Your task to perform on an android device: change text size in settings app Image 0: 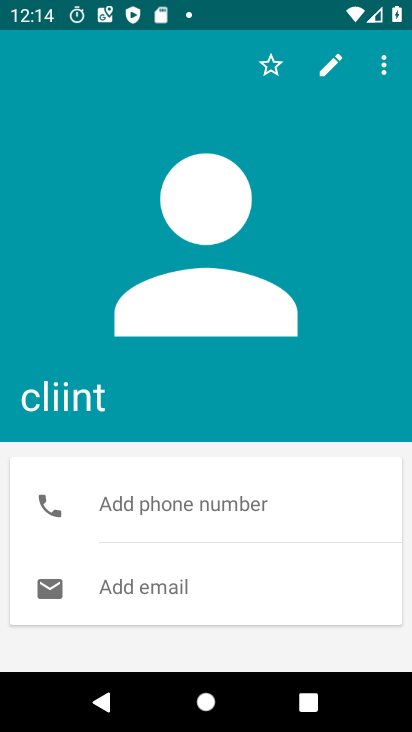
Step 0: press home button
Your task to perform on an android device: change text size in settings app Image 1: 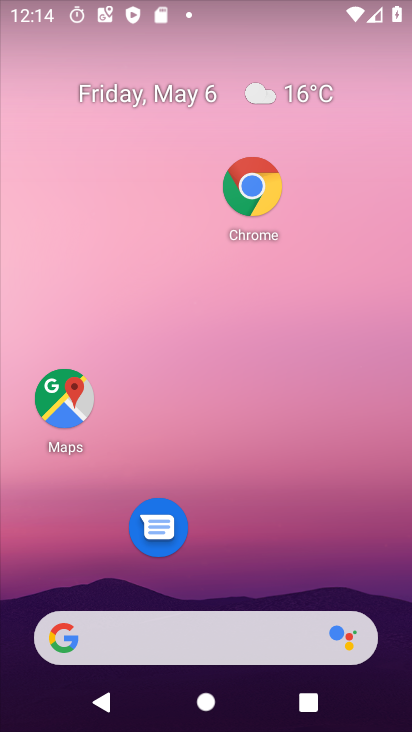
Step 1: drag from (230, 552) to (317, 65)
Your task to perform on an android device: change text size in settings app Image 2: 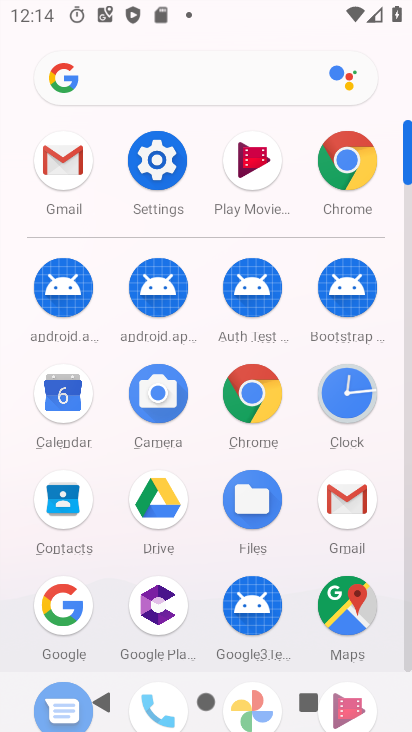
Step 2: click (148, 196)
Your task to perform on an android device: change text size in settings app Image 3: 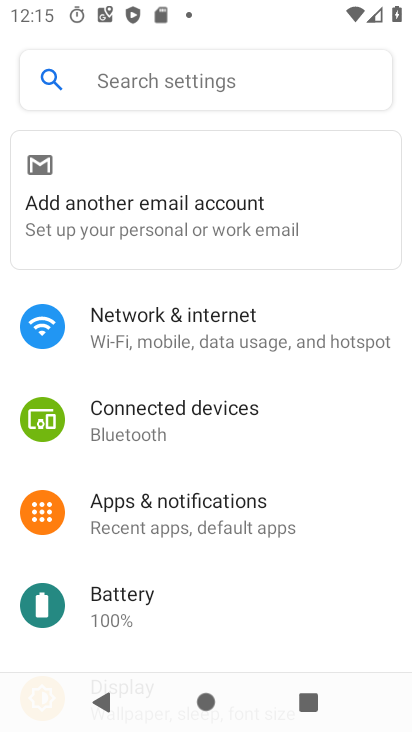
Step 3: drag from (193, 558) to (222, 296)
Your task to perform on an android device: change text size in settings app Image 4: 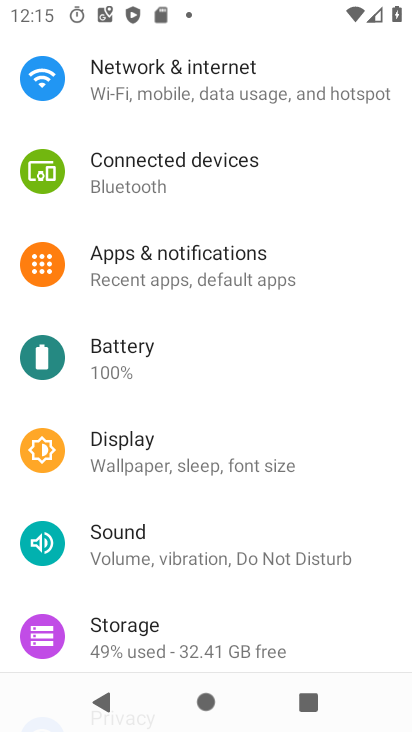
Step 4: click (182, 461)
Your task to perform on an android device: change text size in settings app Image 5: 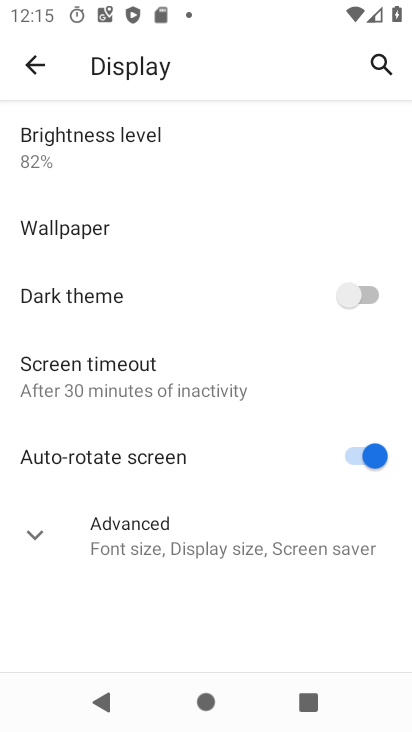
Step 5: click (165, 530)
Your task to perform on an android device: change text size in settings app Image 6: 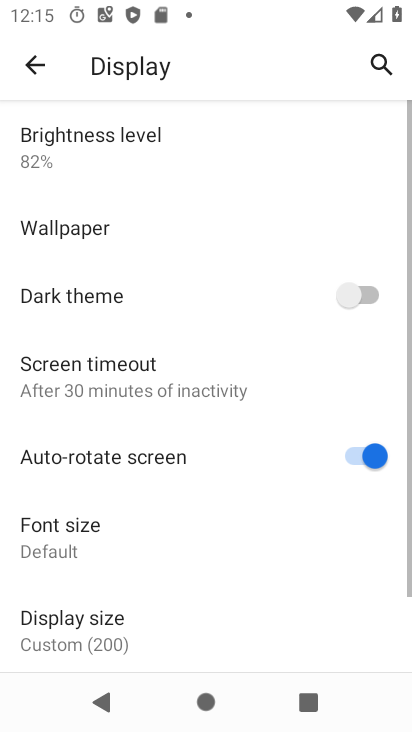
Step 6: click (90, 560)
Your task to perform on an android device: change text size in settings app Image 7: 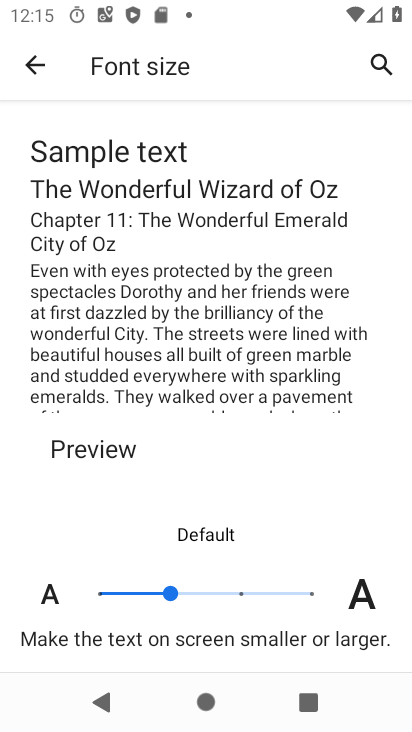
Step 7: click (234, 587)
Your task to perform on an android device: change text size in settings app Image 8: 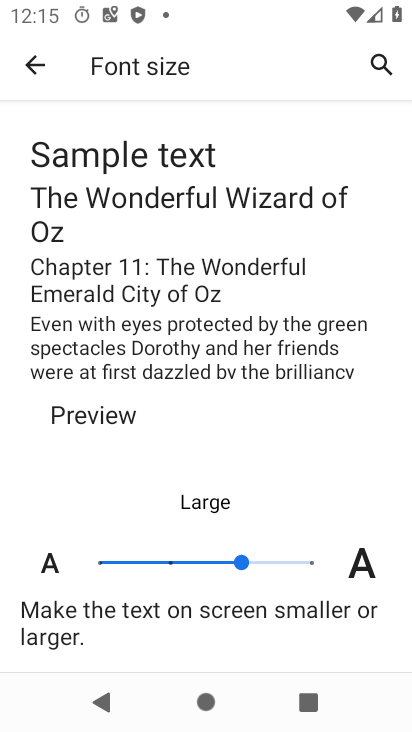
Step 8: task complete